Your task to perform on an android device: change text size in settings app Image 0: 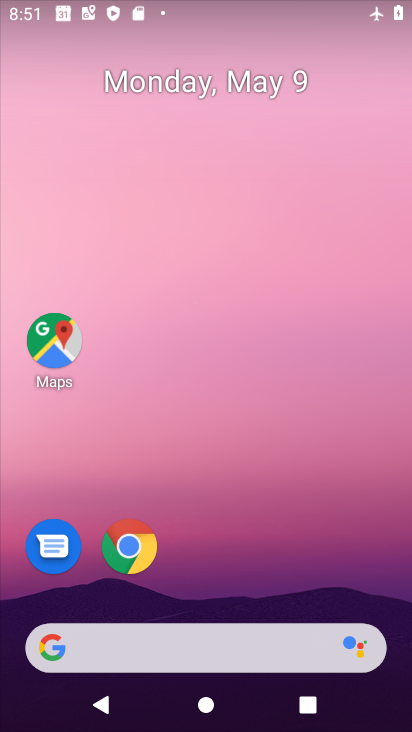
Step 0: drag from (101, 306) to (122, 3)
Your task to perform on an android device: change text size in settings app Image 1: 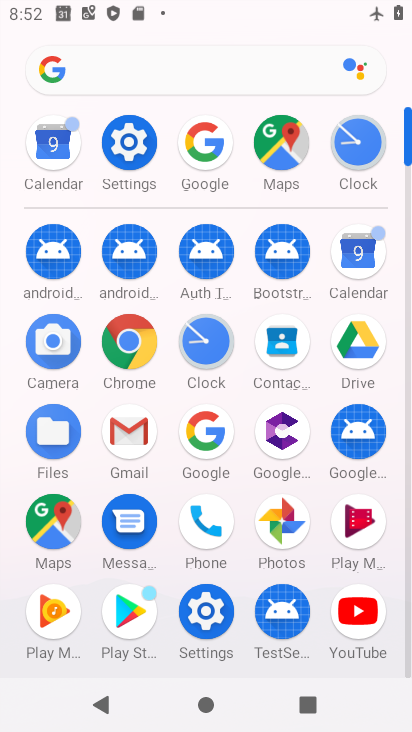
Step 1: click (151, 151)
Your task to perform on an android device: change text size in settings app Image 2: 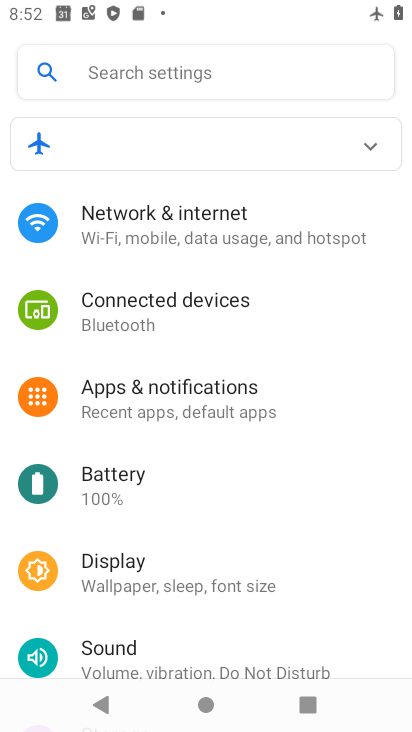
Step 2: drag from (259, 613) to (247, 108)
Your task to perform on an android device: change text size in settings app Image 3: 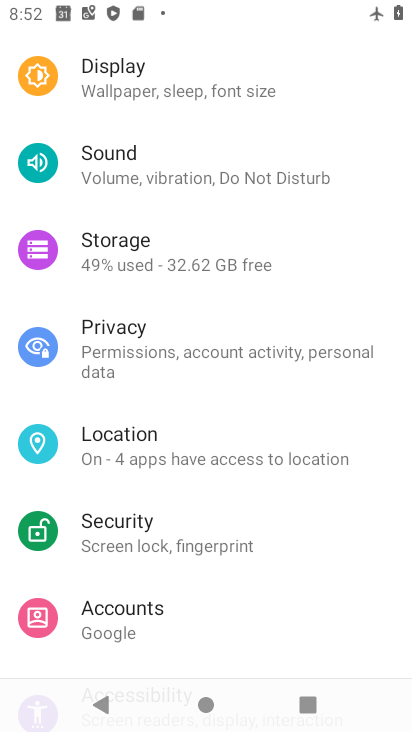
Step 3: click (204, 77)
Your task to perform on an android device: change text size in settings app Image 4: 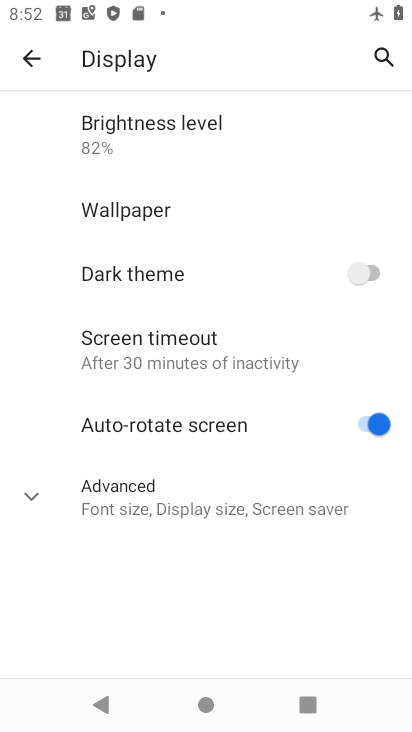
Step 4: click (199, 503)
Your task to perform on an android device: change text size in settings app Image 5: 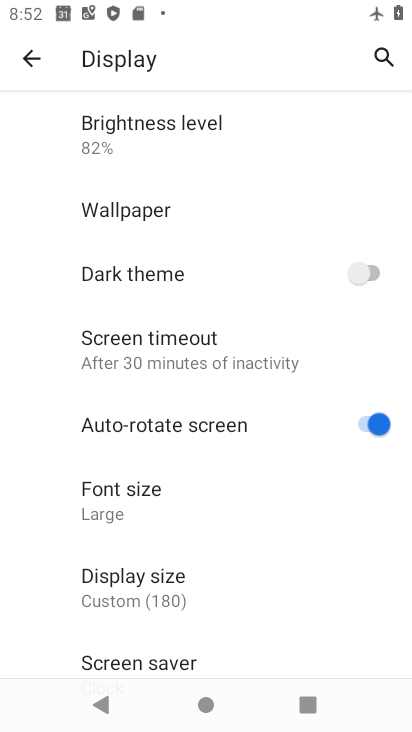
Step 5: click (125, 499)
Your task to perform on an android device: change text size in settings app Image 6: 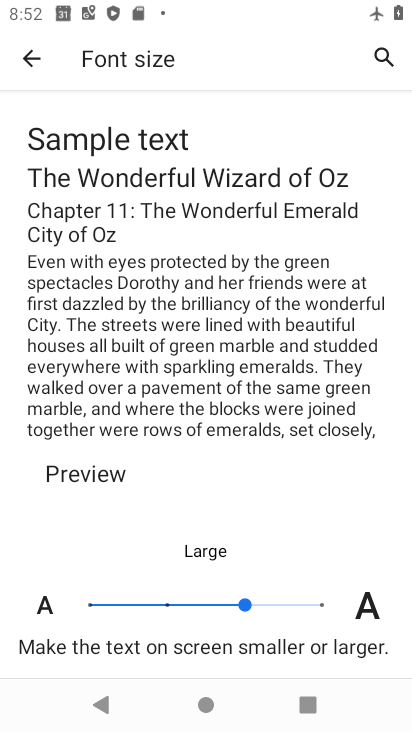
Step 6: click (168, 608)
Your task to perform on an android device: change text size in settings app Image 7: 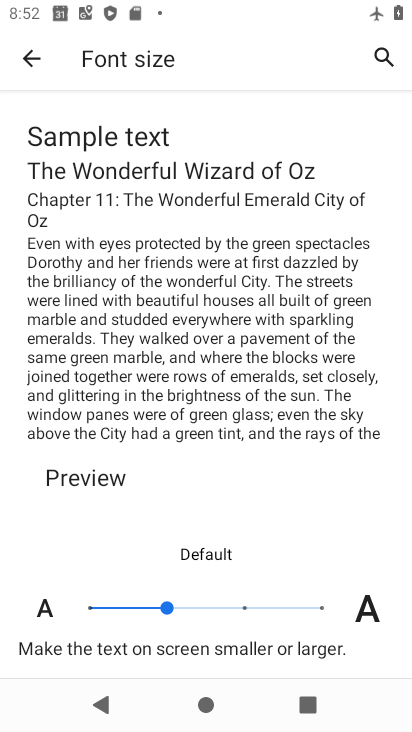
Step 7: task complete